Your task to perform on an android device: open chrome and create a bookmark for the current page Image 0: 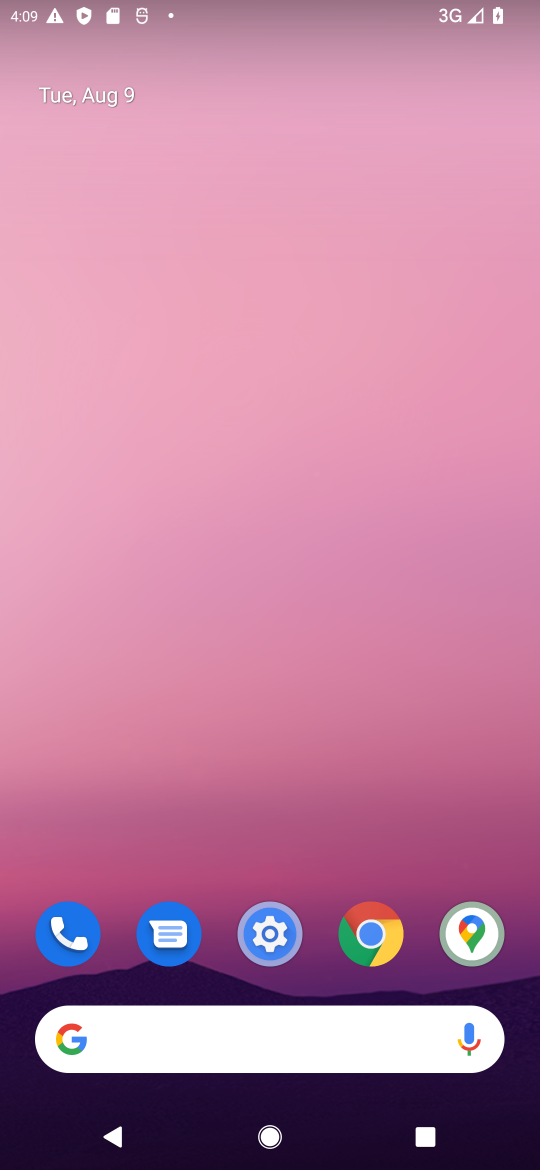
Step 0: click (370, 952)
Your task to perform on an android device: open chrome and create a bookmark for the current page Image 1: 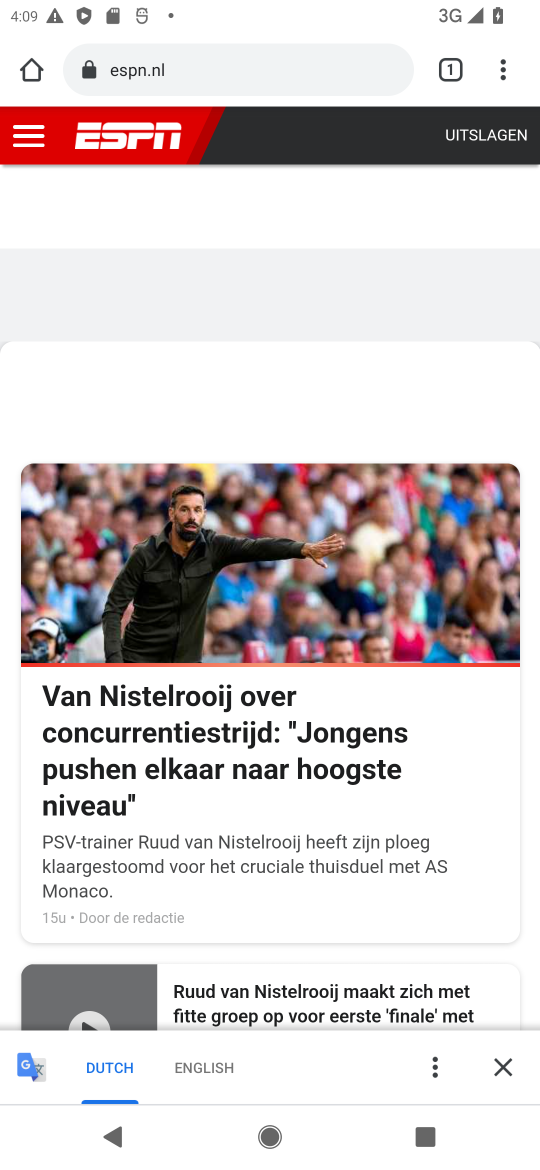
Step 1: click (500, 72)
Your task to perform on an android device: open chrome and create a bookmark for the current page Image 2: 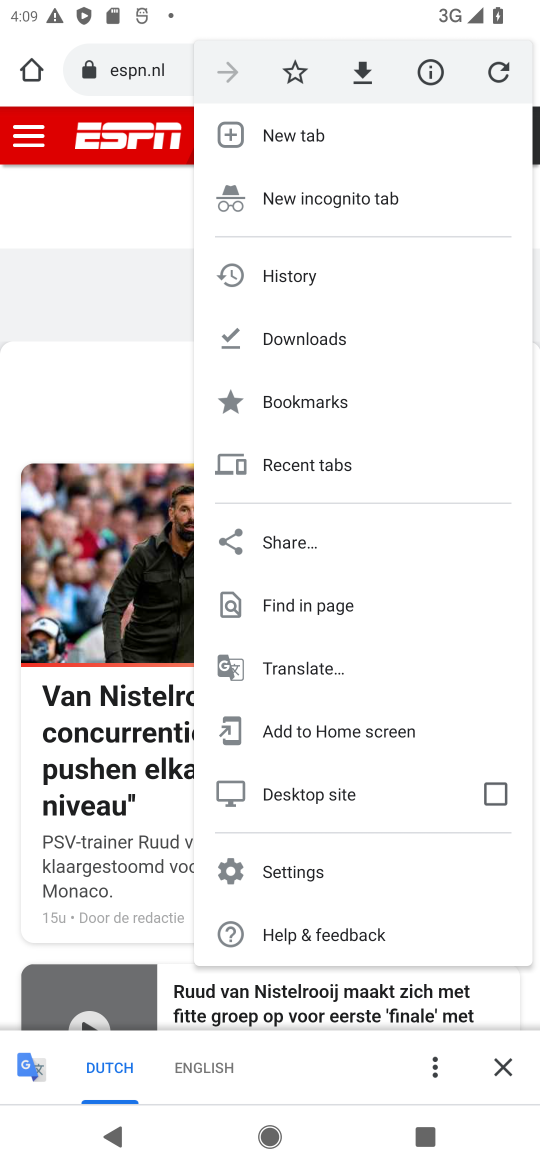
Step 2: click (286, 72)
Your task to perform on an android device: open chrome and create a bookmark for the current page Image 3: 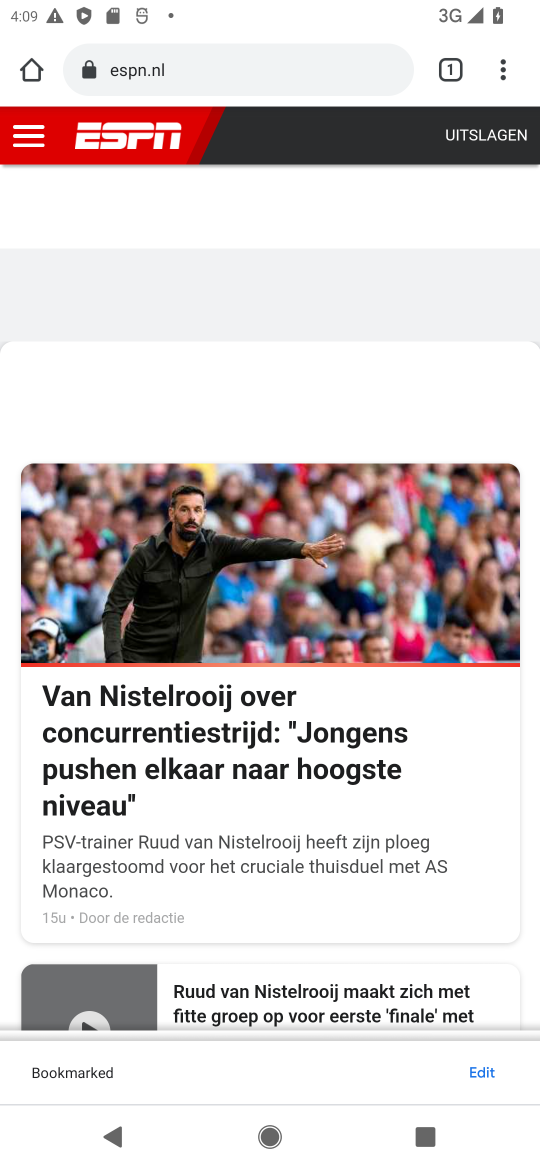
Step 3: task complete